Your task to perform on an android device: turn on location history Image 0: 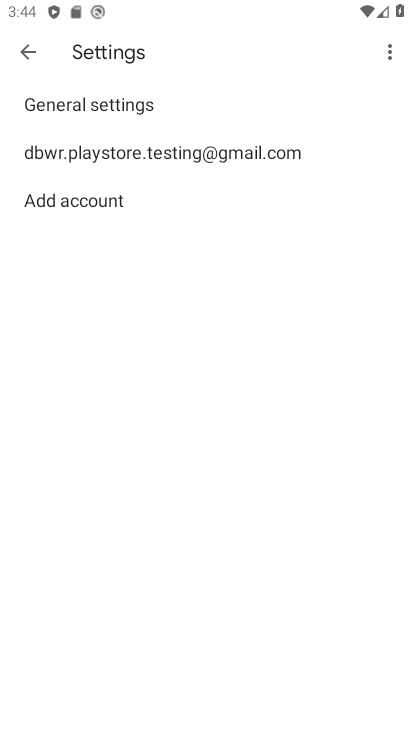
Step 0: press back button
Your task to perform on an android device: turn on location history Image 1: 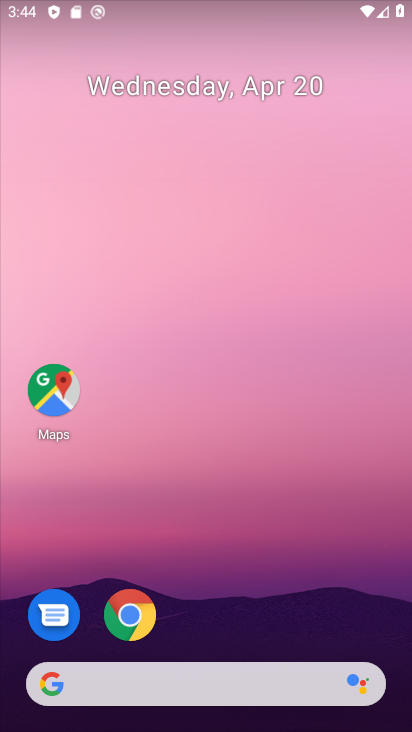
Step 1: drag from (298, 157) to (314, 71)
Your task to perform on an android device: turn on location history Image 2: 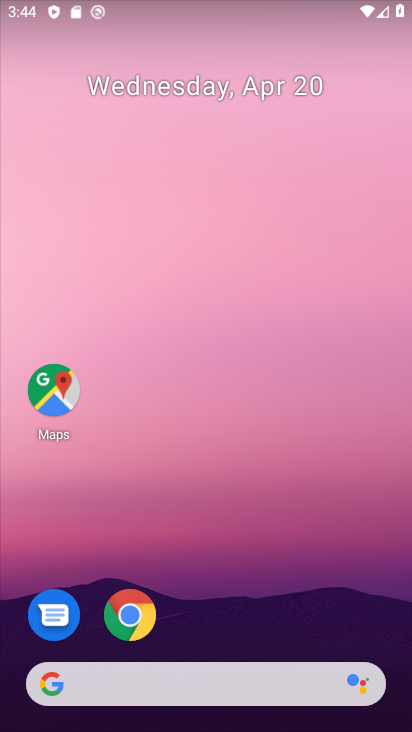
Step 2: drag from (215, 547) to (280, 87)
Your task to perform on an android device: turn on location history Image 3: 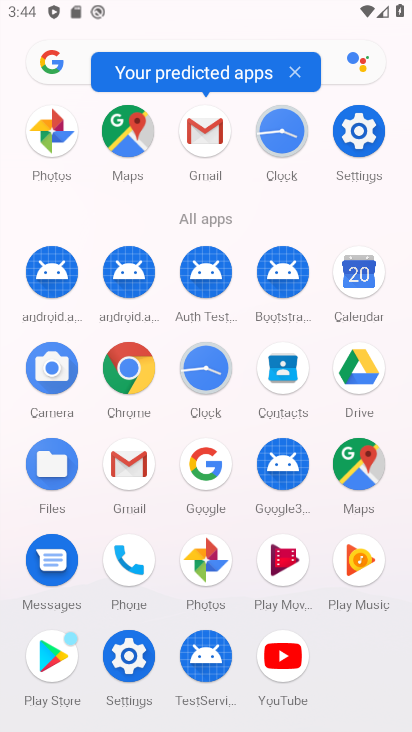
Step 3: click (355, 141)
Your task to perform on an android device: turn on location history Image 4: 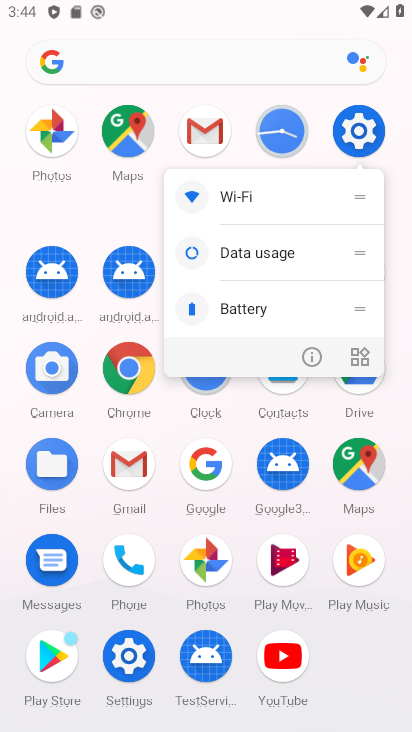
Step 4: click (361, 135)
Your task to perform on an android device: turn on location history Image 5: 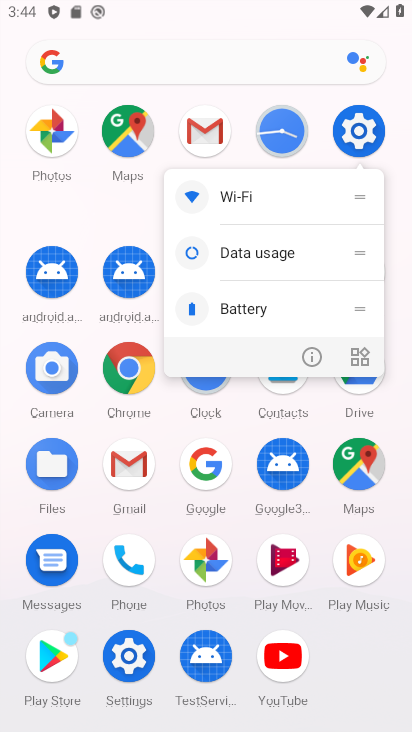
Step 5: click (367, 136)
Your task to perform on an android device: turn on location history Image 6: 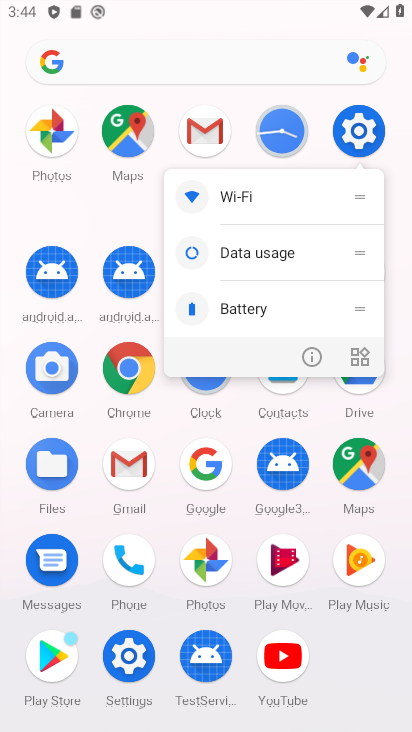
Step 6: click (361, 133)
Your task to perform on an android device: turn on location history Image 7: 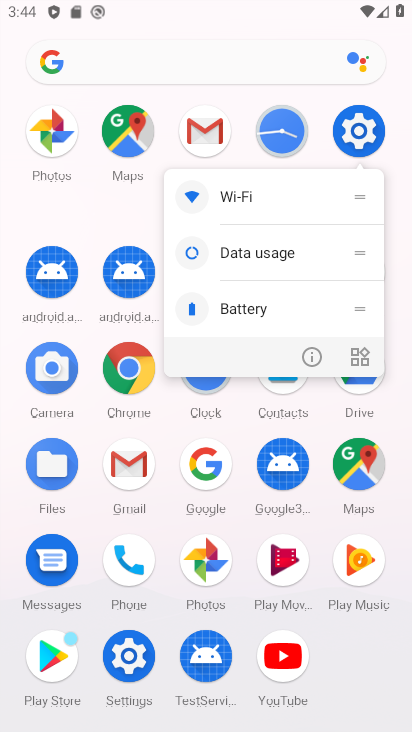
Step 7: click (360, 130)
Your task to perform on an android device: turn on location history Image 8: 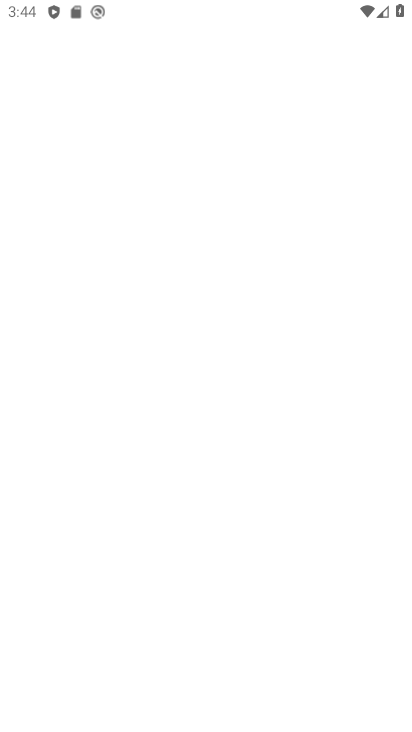
Step 8: click (356, 130)
Your task to perform on an android device: turn on location history Image 9: 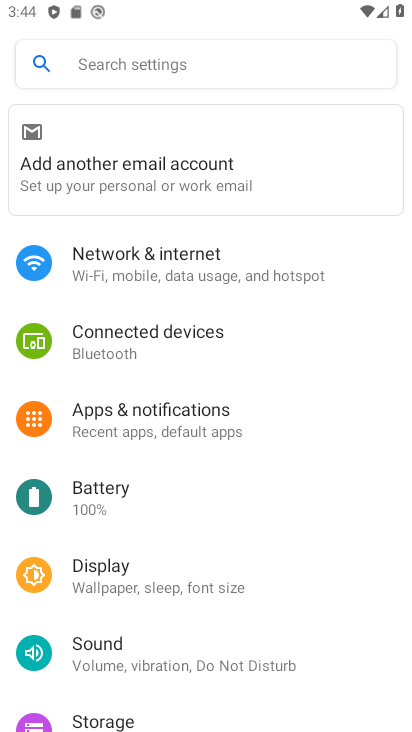
Step 9: drag from (198, 600) to (316, 89)
Your task to perform on an android device: turn on location history Image 10: 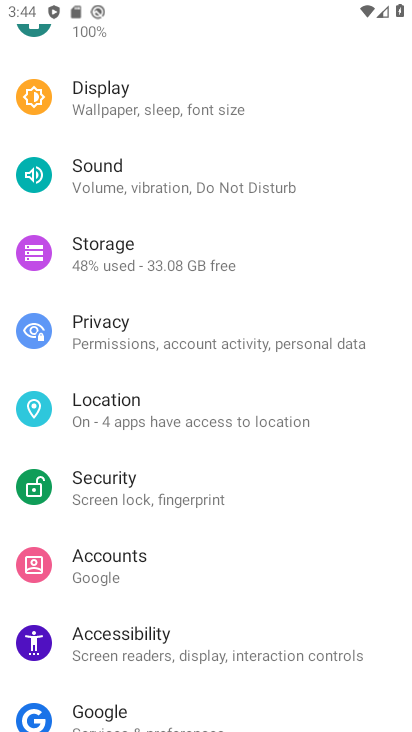
Step 10: click (124, 404)
Your task to perform on an android device: turn on location history Image 11: 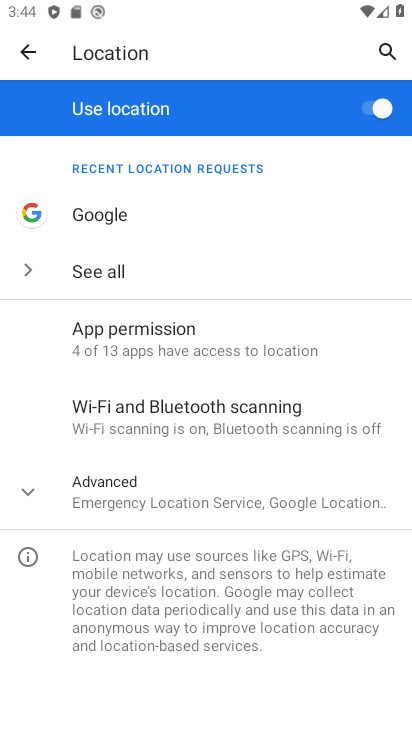
Step 11: click (165, 482)
Your task to perform on an android device: turn on location history Image 12: 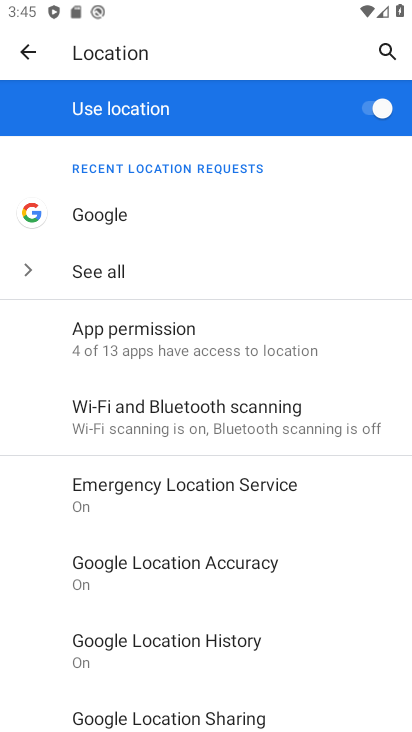
Step 12: drag from (173, 631) to (242, 336)
Your task to perform on an android device: turn on location history Image 13: 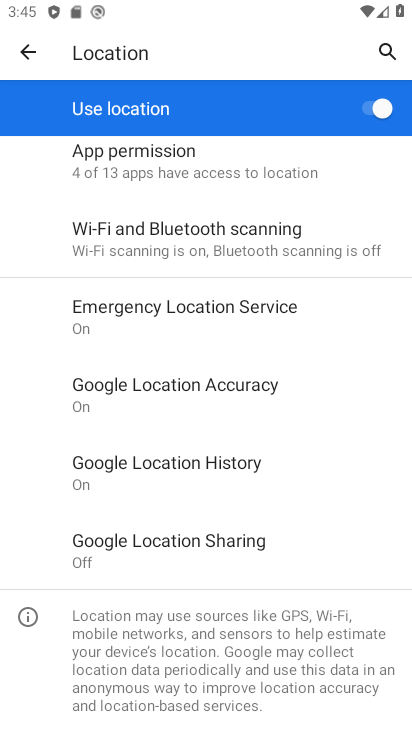
Step 13: click (187, 459)
Your task to perform on an android device: turn on location history Image 14: 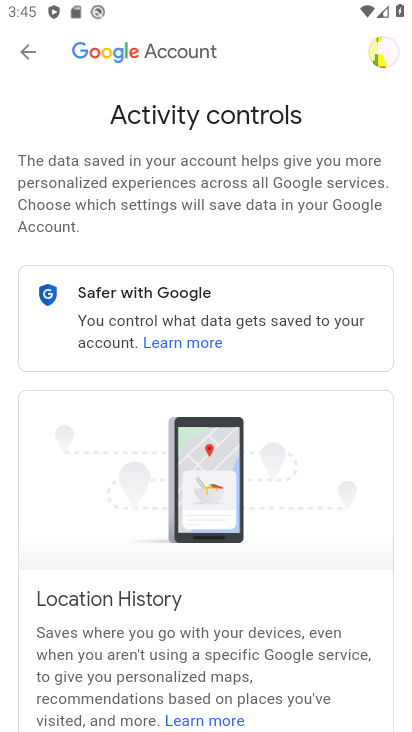
Step 14: task complete